Your task to perform on an android device: delete browsing data in the chrome app Image 0: 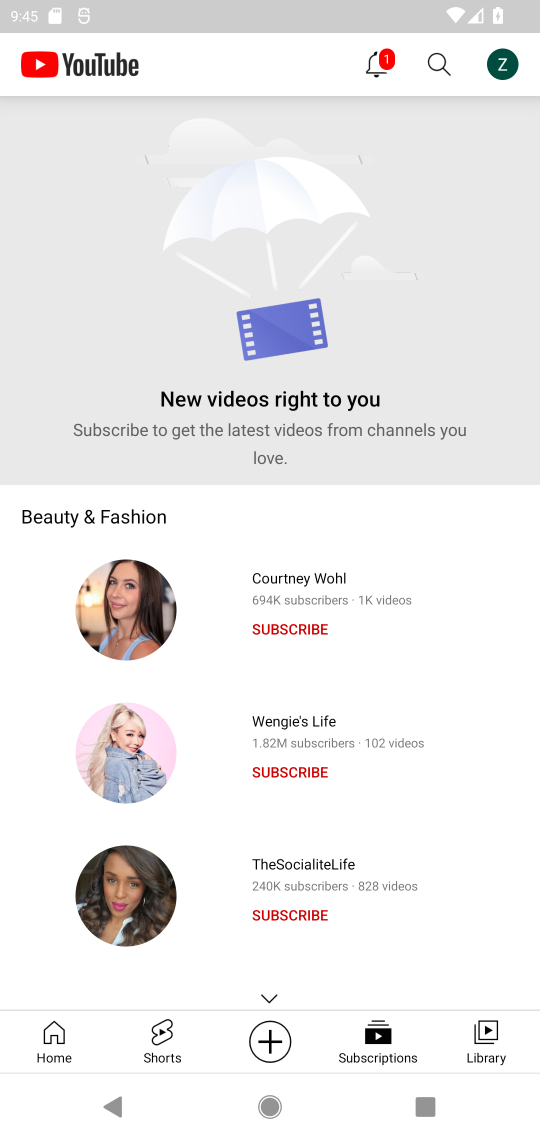
Step 0: press home button
Your task to perform on an android device: delete browsing data in the chrome app Image 1: 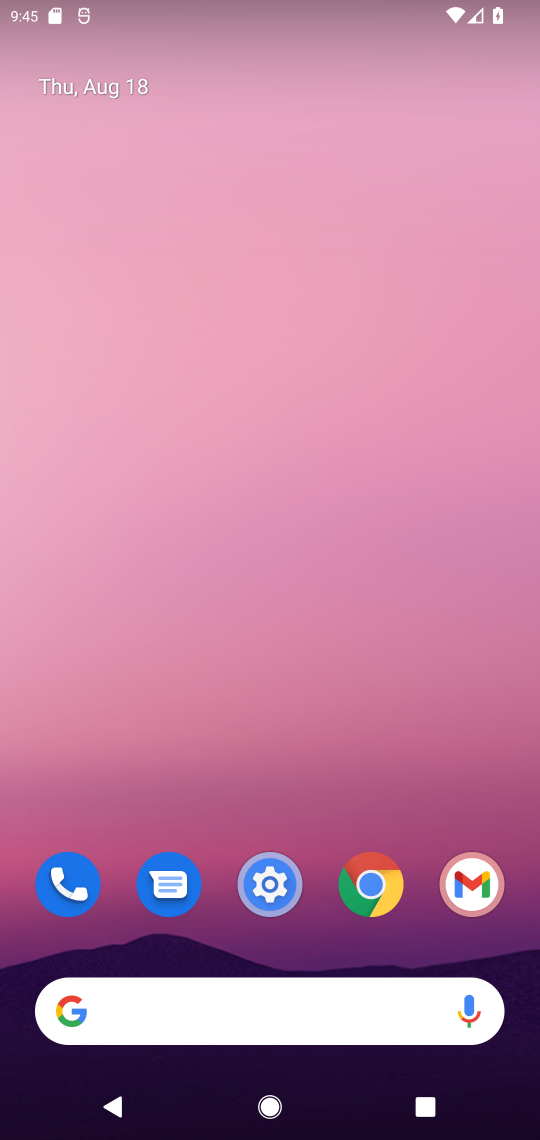
Step 1: click (365, 895)
Your task to perform on an android device: delete browsing data in the chrome app Image 2: 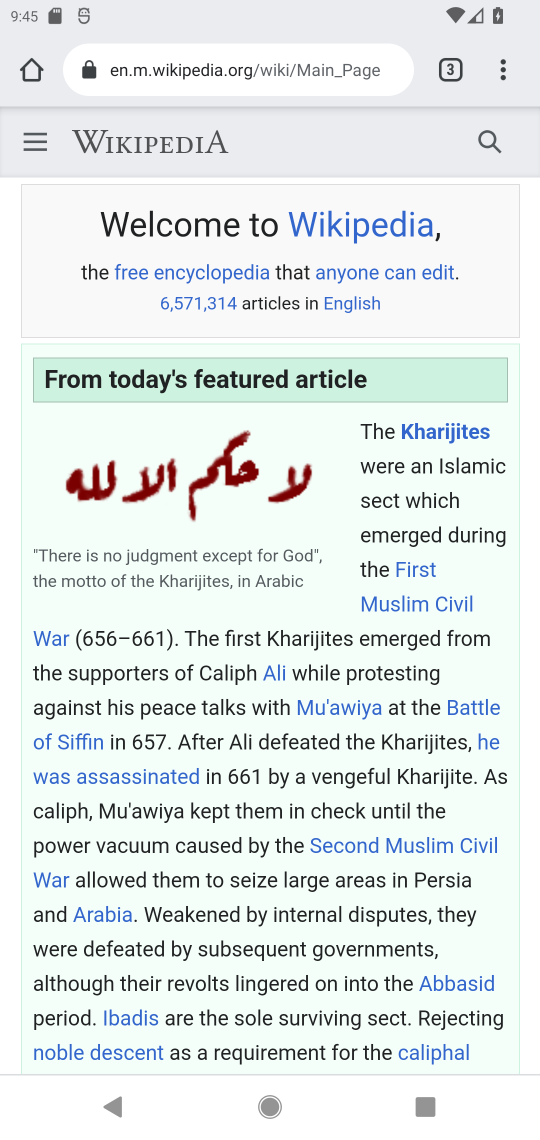
Step 2: click (520, 68)
Your task to perform on an android device: delete browsing data in the chrome app Image 3: 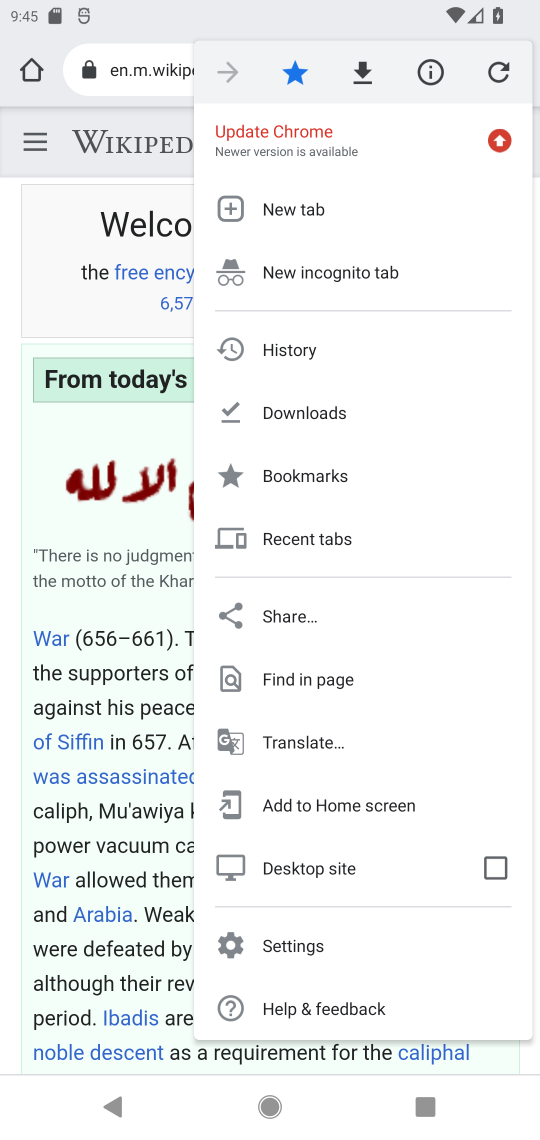
Step 3: click (297, 360)
Your task to perform on an android device: delete browsing data in the chrome app Image 4: 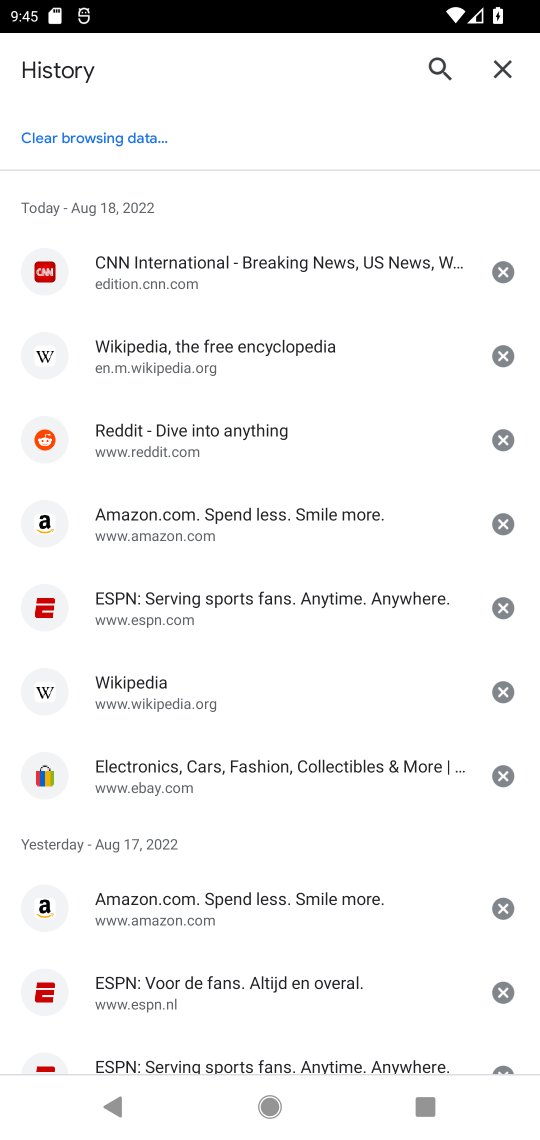
Step 4: click (118, 150)
Your task to perform on an android device: delete browsing data in the chrome app Image 5: 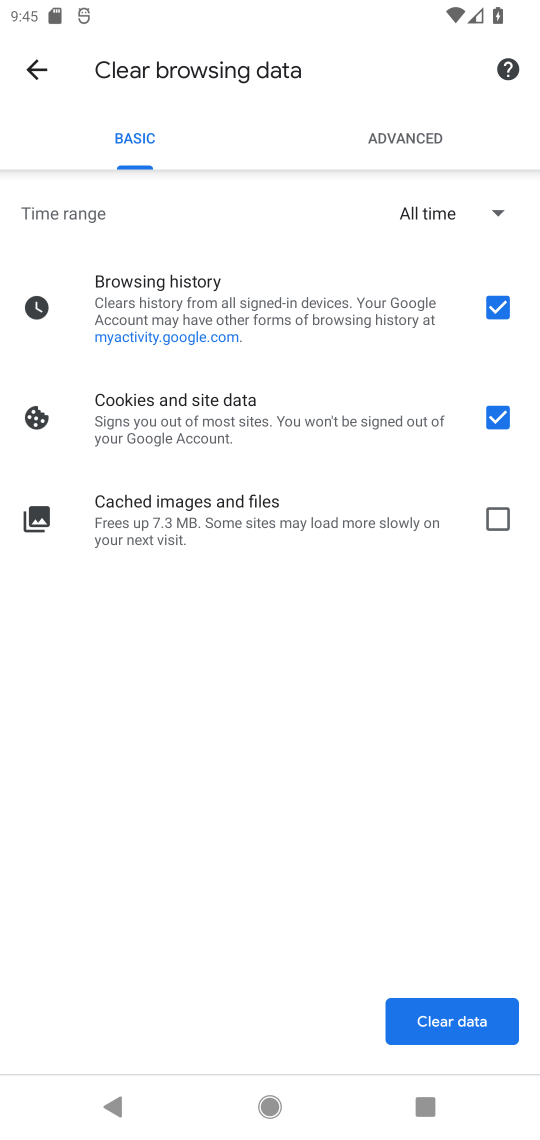
Step 5: click (490, 412)
Your task to perform on an android device: delete browsing data in the chrome app Image 6: 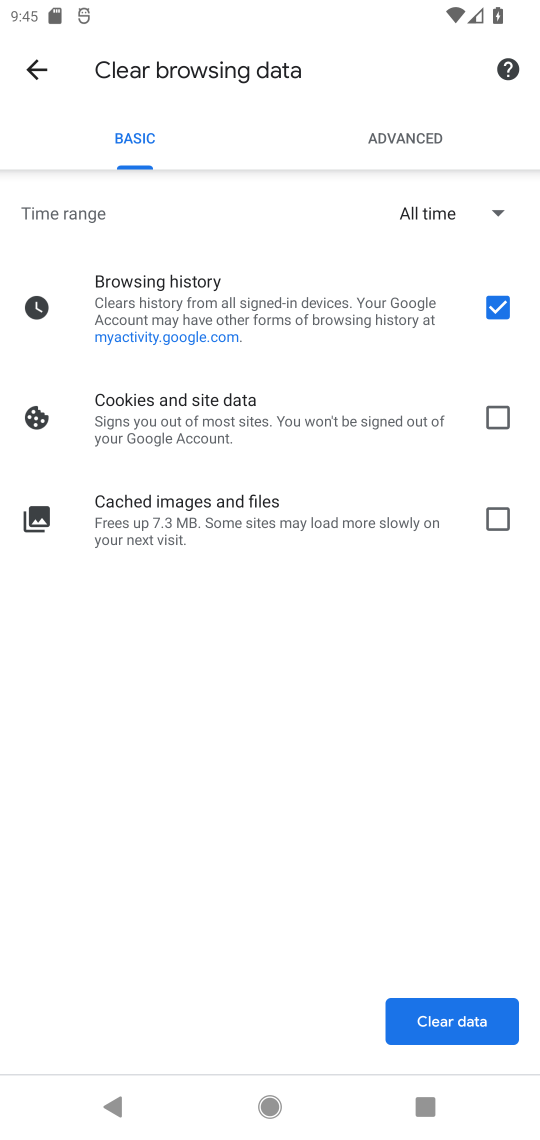
Step 6: click (453, 1024)
Your task to perform on an android device: delete browsing data in the chrome app Image 7: 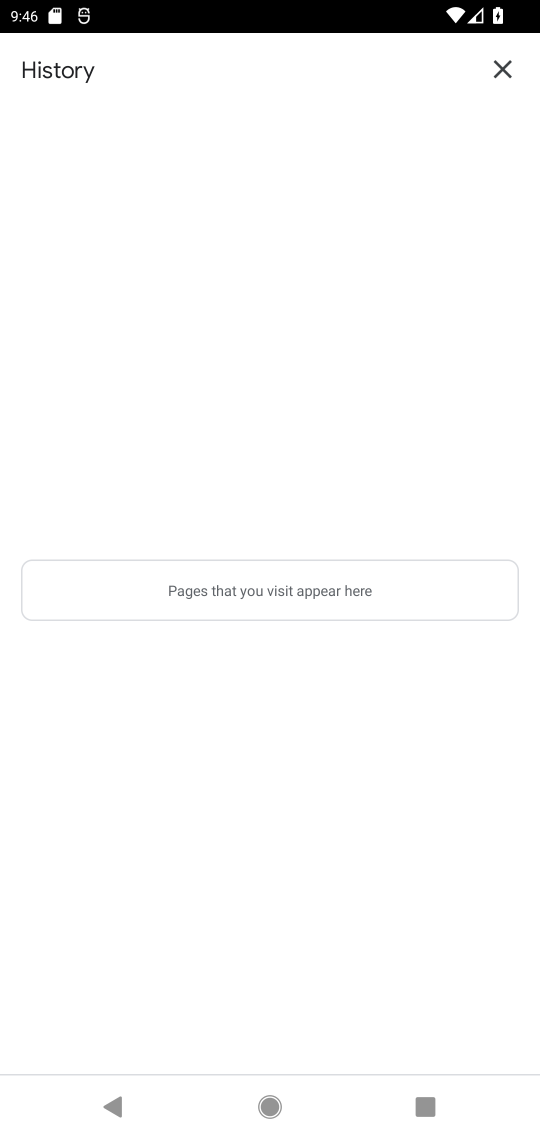
Step 7: task complete